Your task to perform on an android device: Check the news Image 0: 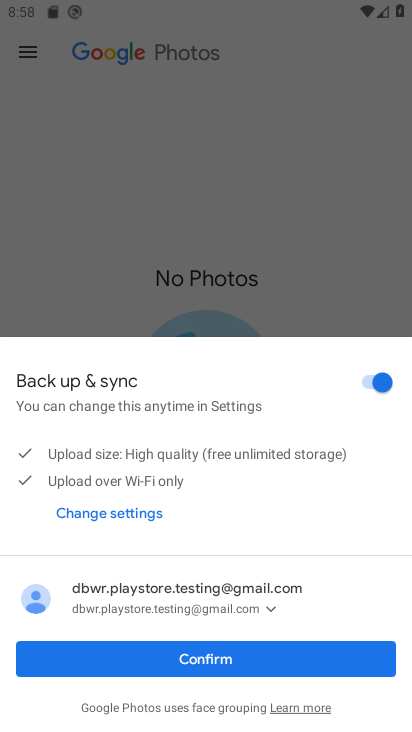
Step 0: press home button
Your task to perform on an android device: Check the news Image 1: 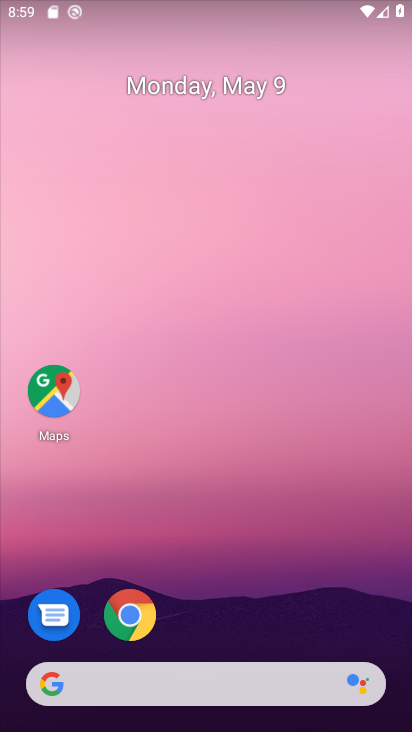
Step 1: drag from (286, 722) to (265, 222)
Your task to perform on an android device: Check the news Image 2: 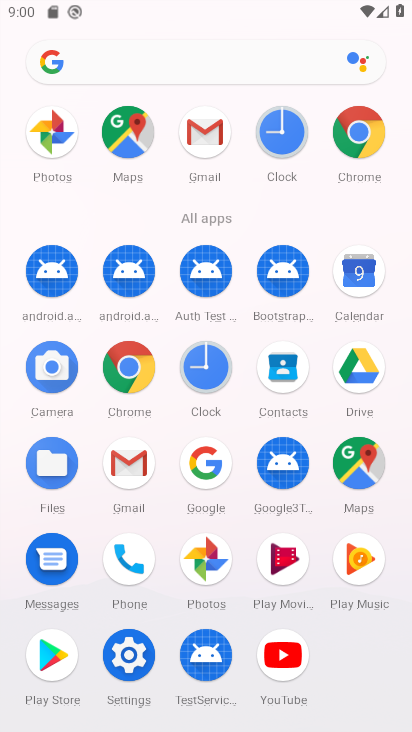
Step 2: click (134, 70)
Your task to perform on an android device: Check the news Image 3: 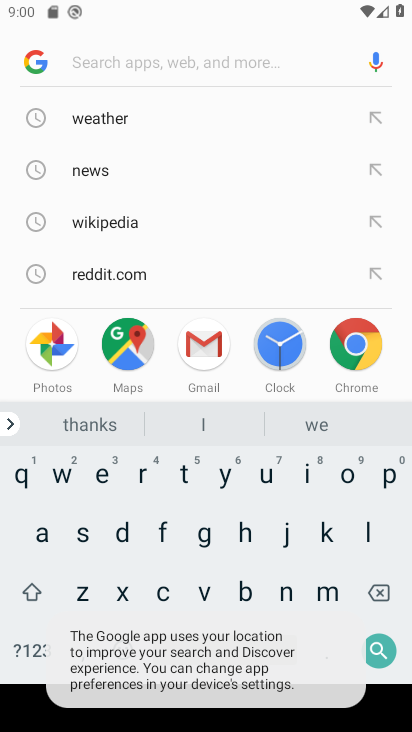
Step 3: drag from (137, 173) to (255, 422)
Your task to perform on an android device: Check the news Image 4: 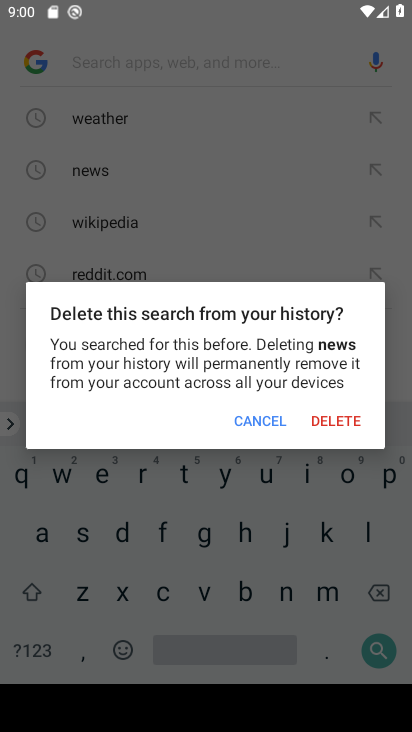
Step 4: click (256, 410)
Your task to perform on an android device: Check the news Image 5: 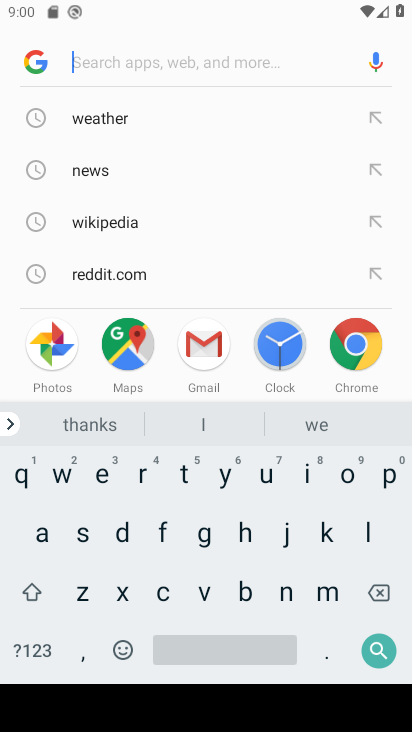
Step 5: click (93, 171)
Your task to perform on an android device: Check the news Image 6: 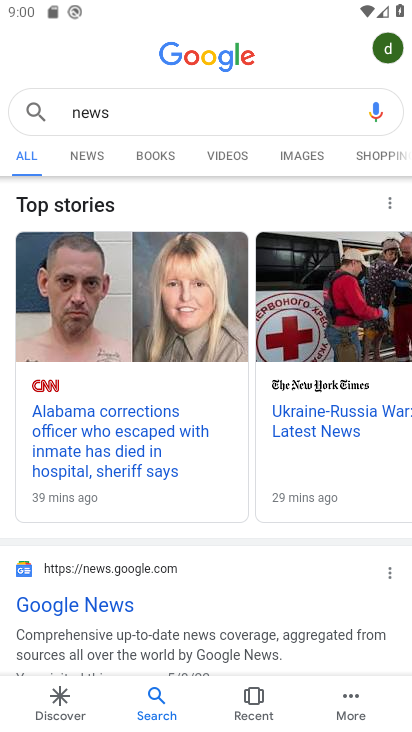
Step 6: task complete